Your task to perform on an android device: Show me productivity apps on the Play Store Image 0: 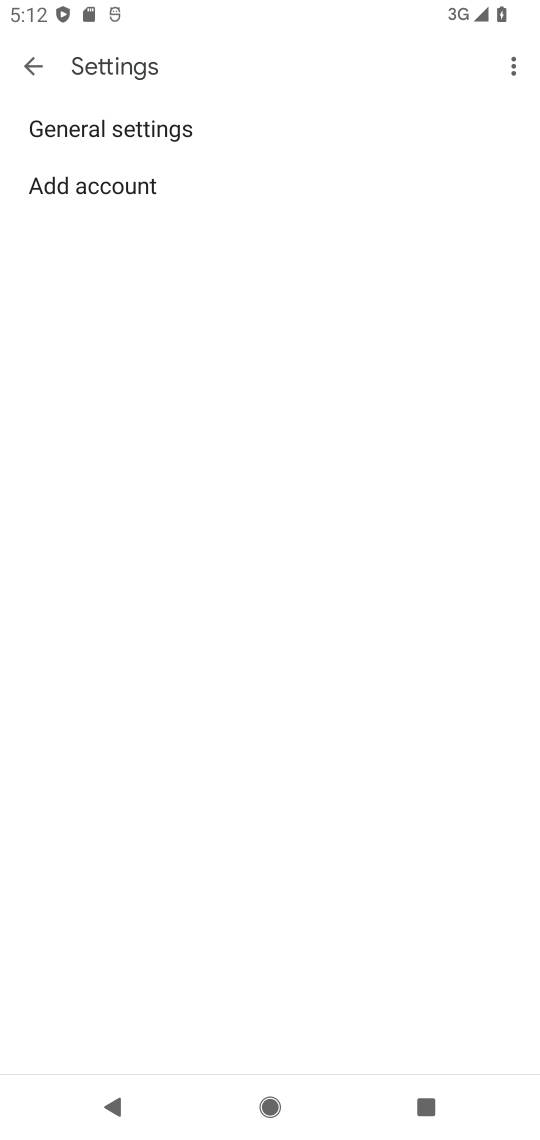
Step 0: press home button
Your task to perform on an android device: Show me productivity apps on the Play Store Image 1: 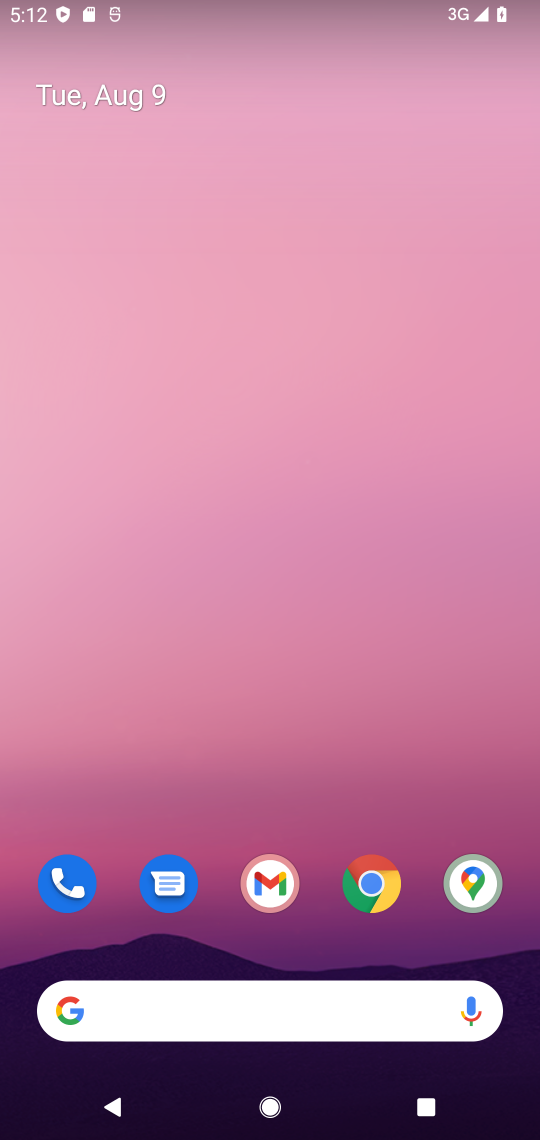
Step 1: drag from (249, 774) to (249, 21)
Your task to perform on an android device: Show me productivity apps on the Play Store Image 2: 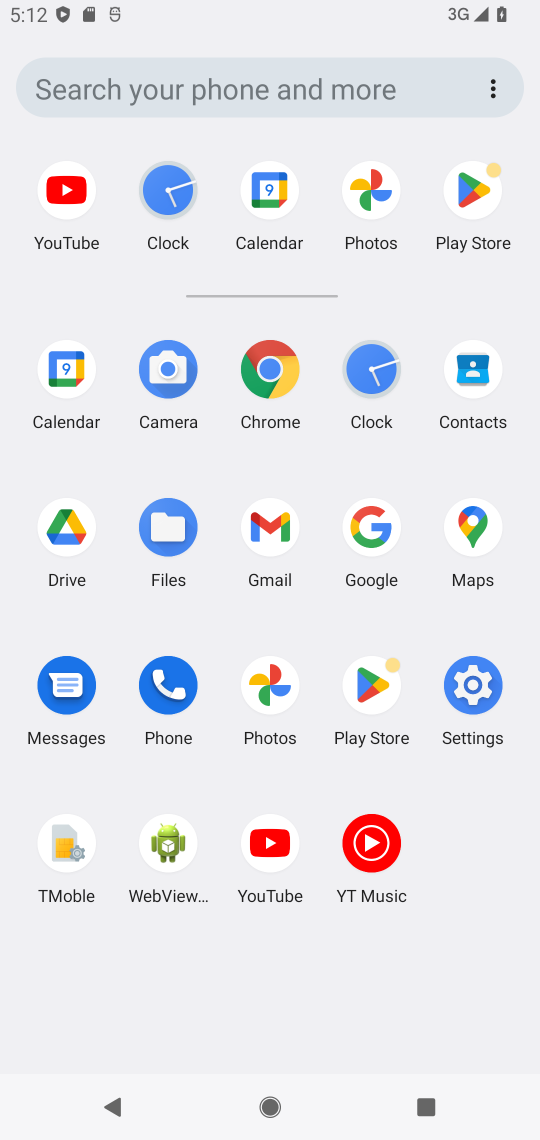
Step 2: click (453, 238)
Your task to perform on an android device: Show me productivity apps on the Play Store Image 3: 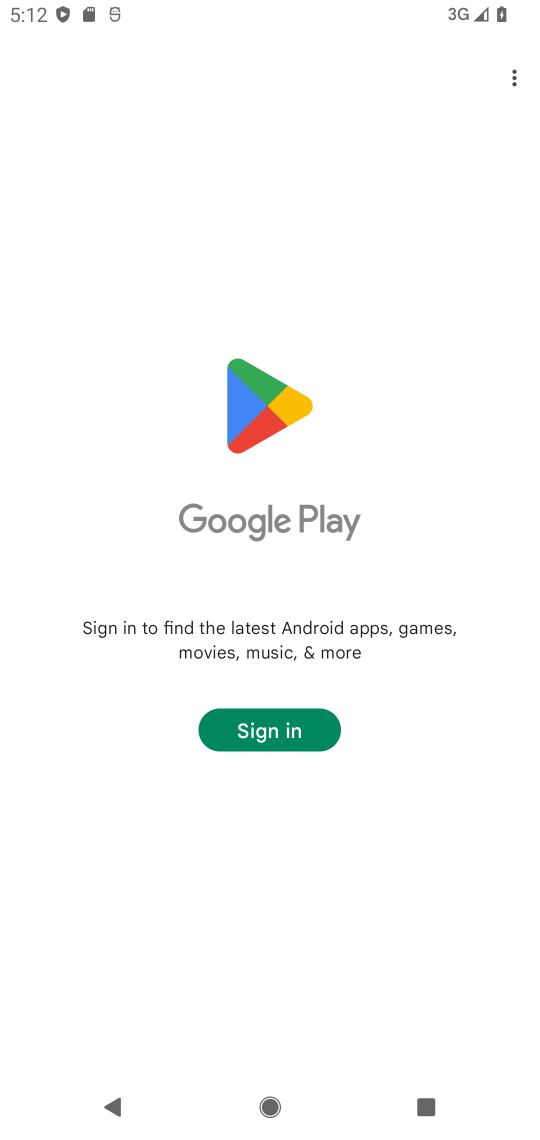
Step 3: task complete